Your task to perform on an android device: Open settings on Google Maps Image 0: 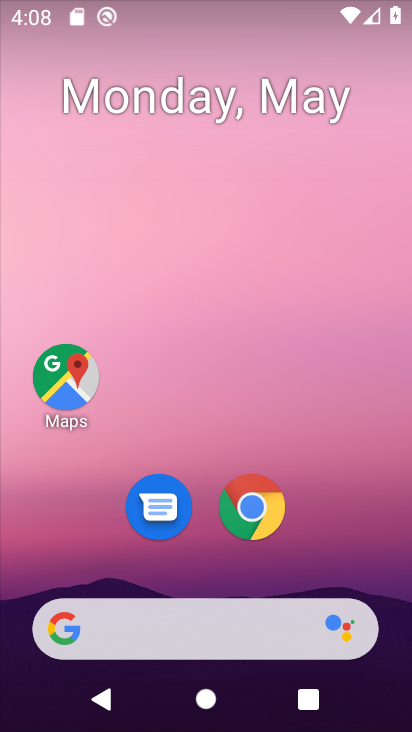
Step 0: press home button
Your task to perform on an android device: Open settings on Google Maps Image 1: 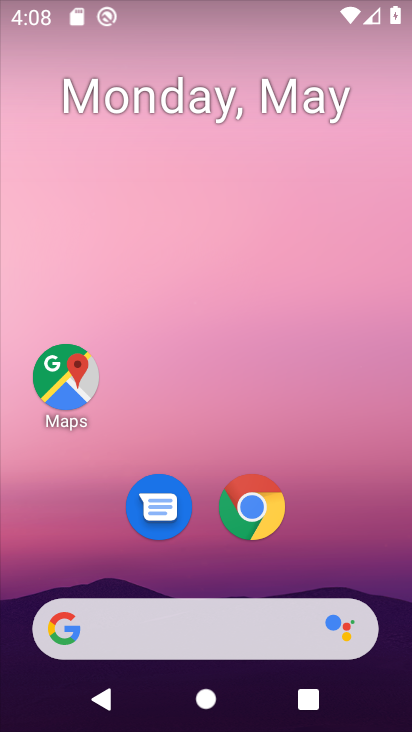
Step 1: drag from (315, 587) to (359, 7)
Your task to perform on an android device: Open settings on Google Maps Image 2: 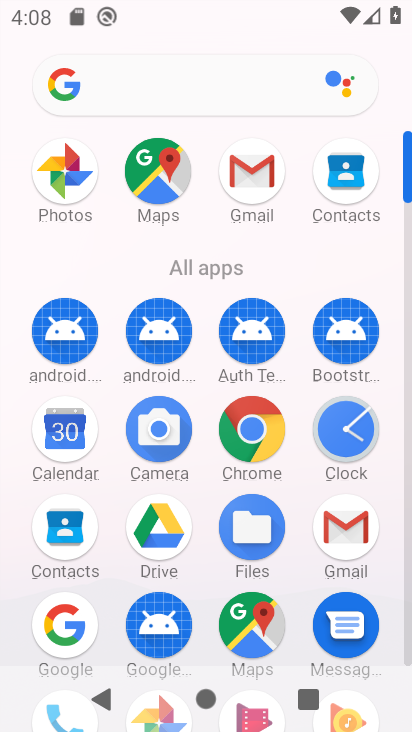
Step 2: click (407, 570)
Your task to perform on an android device: Open settings on Google Maps Image 3: 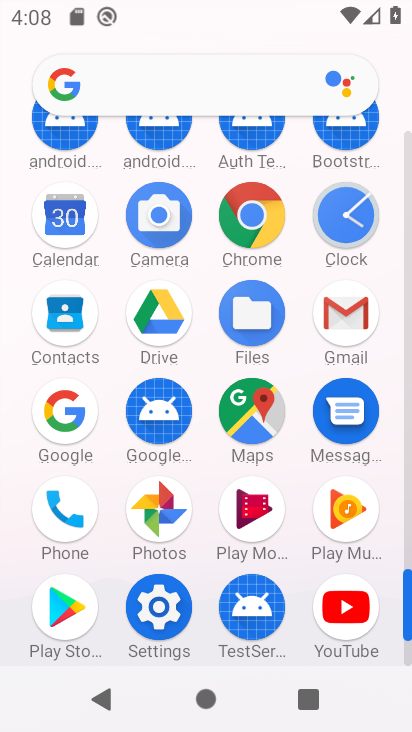
Step 3: click (222, 403)
Your task to perform on an android device: Open settings on Google Maps Image 4: 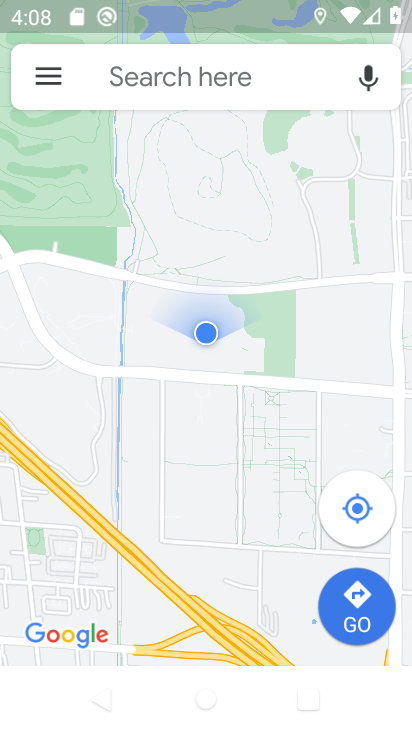
Step 4: click (46, 67)
Your task to perform on an android device: Open settings on Google Maps Image 5: 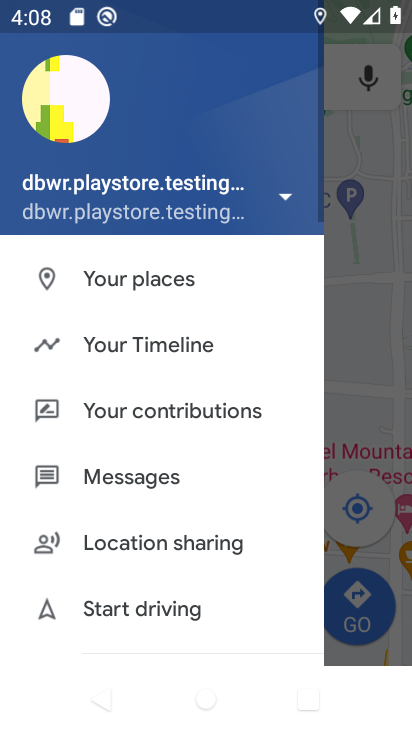
Step 5: drag from (175, 633) to (300, 73)
Your task to perform on an android device: Open settings on Google Maps Image 6: 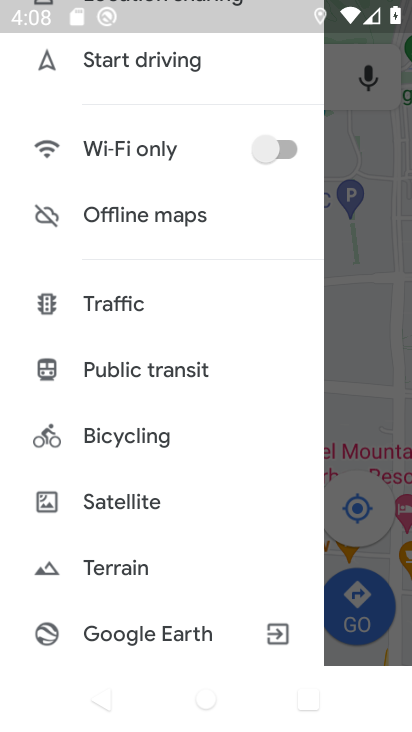
Step 6: drag from (176, 555) to (213, 31)
Your task to perform on an android device: Open settings on Google Maps Image 7: 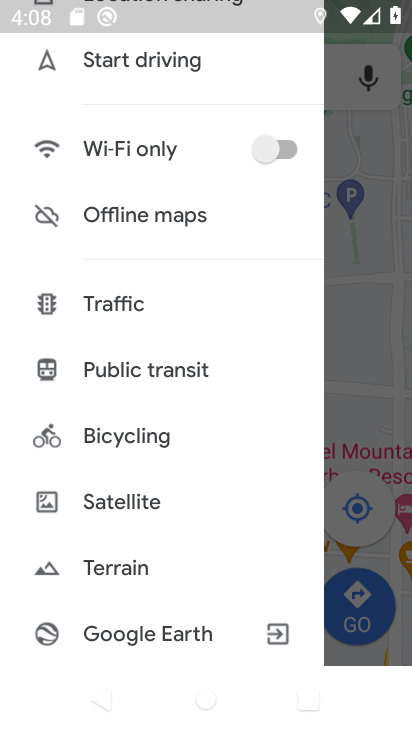
Step 7: drag from (155, 563) to (103, 195)
Your task to perform on an android device: Open settings on Google Maps Image 8: 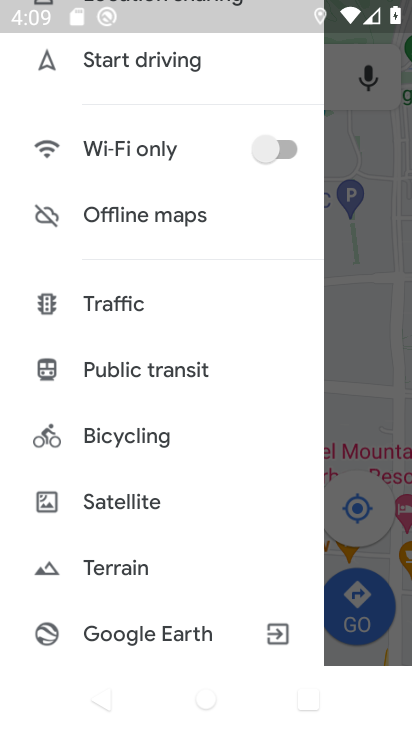
Step 8: drag from (147, 292) to (117, 5)
Your task to perform on an android device: Open settings on Google Maps Image 9: 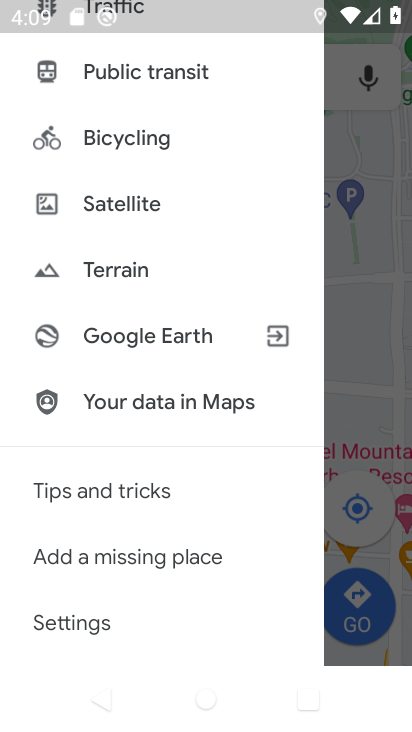
Step 9: click (81, 616)
Your task to perform on an android device: Open settings on Google Maps Image 10: 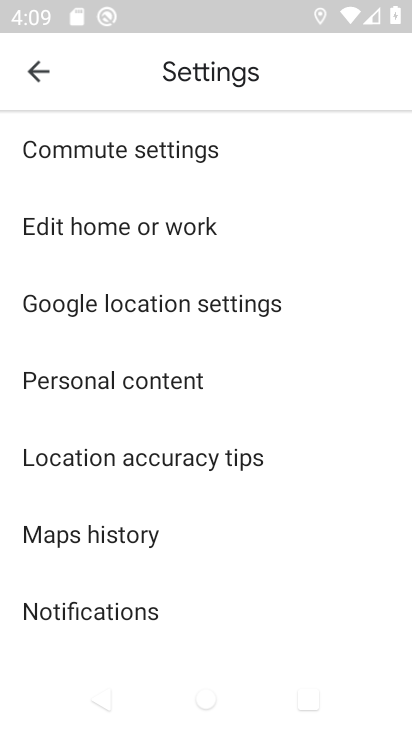
Step 10: task complete